Your task to perform on an android device: make emails show in primary in the gmail app Image 0: 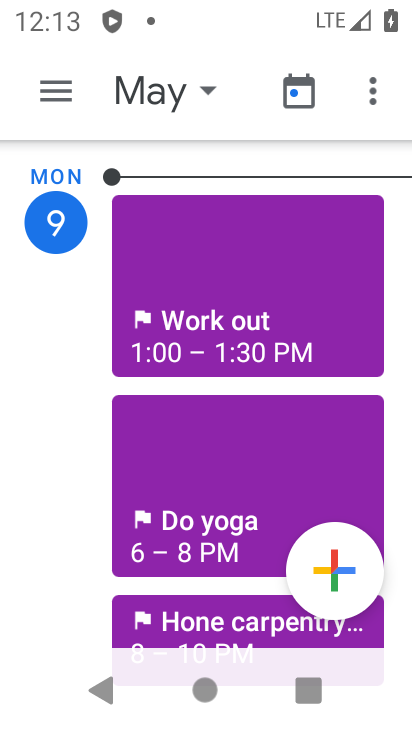
Step 0: drag from (132, 551) to (162, 326)
Your task to perform on an android device: make emails show in primary in the gmail app Image 1: 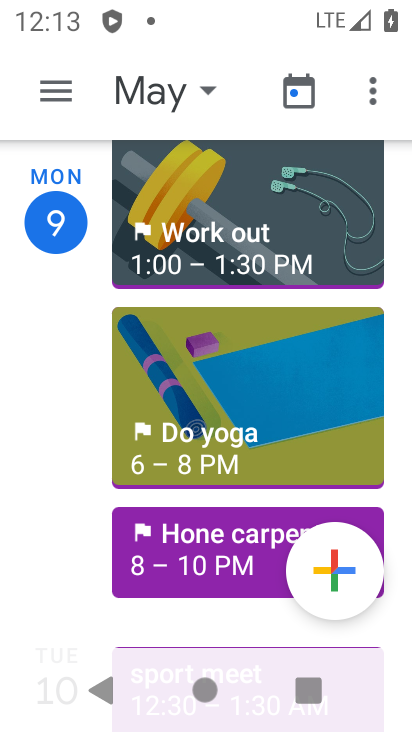
Step 1: press home button
Your task to perform on an android device: make emails show in primary in the gmail app Image 2: 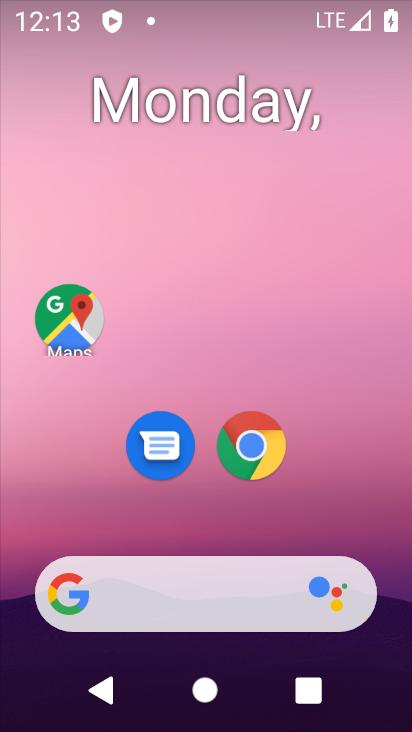
Step 2: drag from (182, 549) to (216, 283)
Your task to perform on an android device: make emails show in primary in the gmail app Image 3: 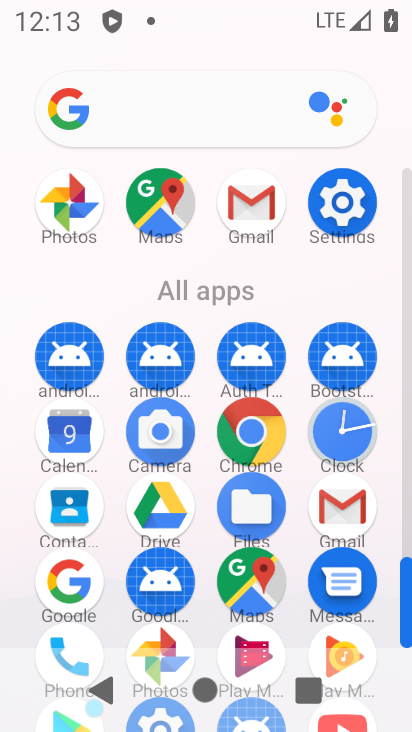
Step 3: click (343, 521)
Your task to perform on an android device: make emails show in primary in the gmail app Image 4: 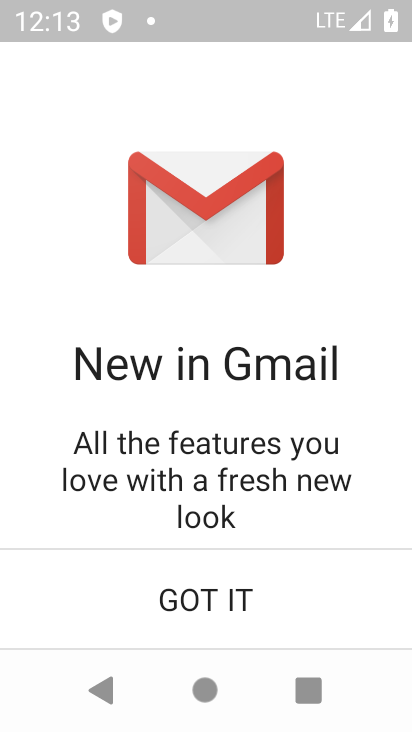
Step 4: click (273, 605)
Your task to perform on an android device: make emails show in primary in the gmail app Image 5: 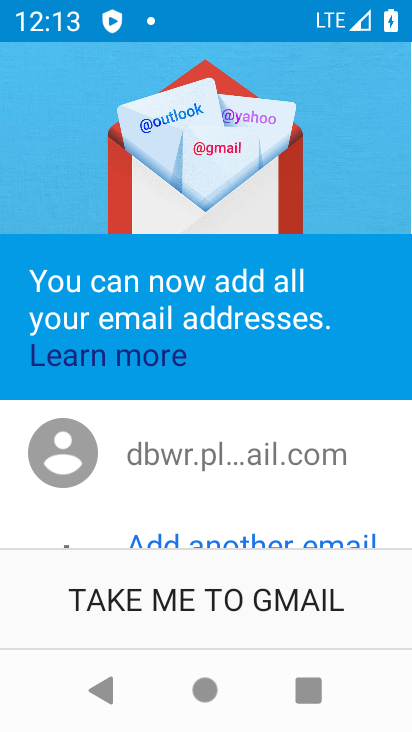
Step 5: click (273, 605)
Your task to perform on an android device: make emails show in primary in the gmail app Image 6: 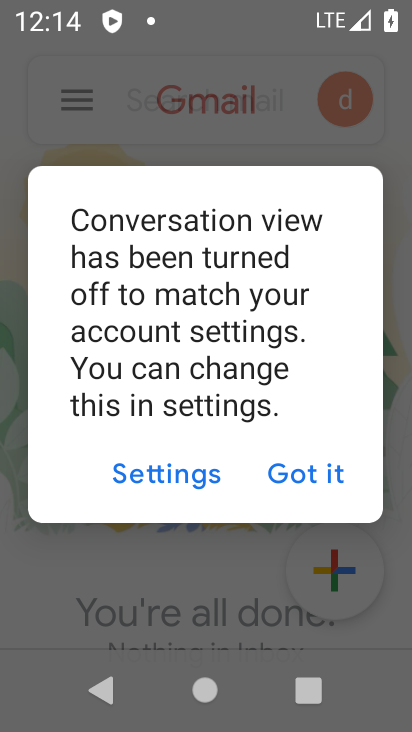
Step 6: click (319, 477)
Your task to perform on an android device: make emails show in primary in the gmail app Image 7: 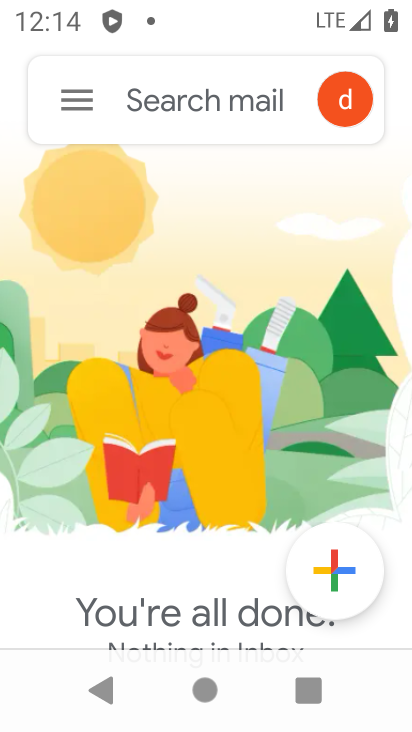
Step 7: click (72, 104)
Your task to perform on an android device: make emails show in primary in the gmail app Image 8: 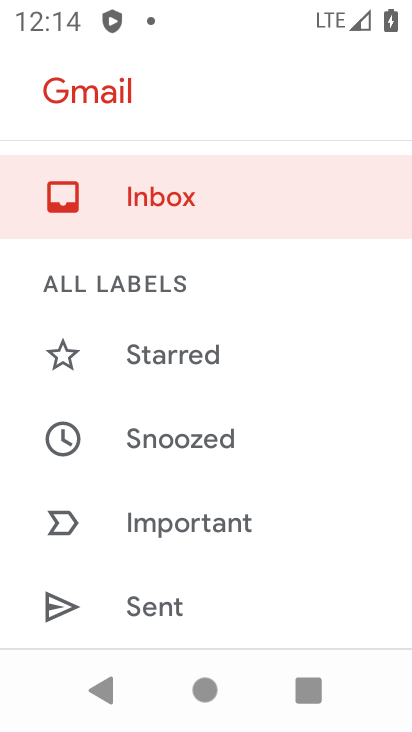
Step 8: drag from (220, 564) to (272, 358)
Your task to perform on an android device: make emails show in primary in the gmail app Image 9: 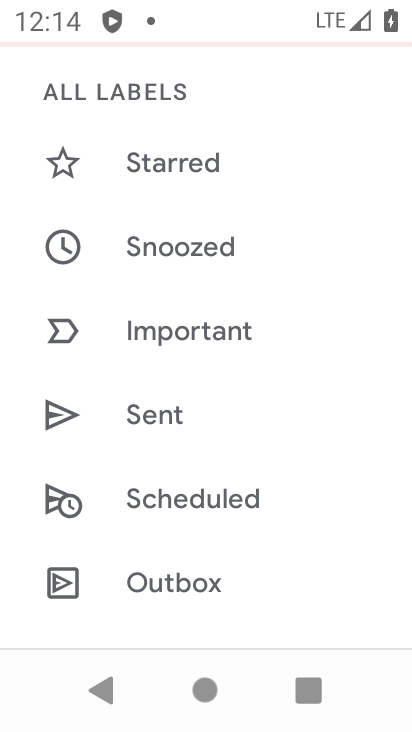
Step 9: drag from (238, 646) to (298, 381)
Your task to perform on an android device: make emails show in primary in the gmail app Image 10: 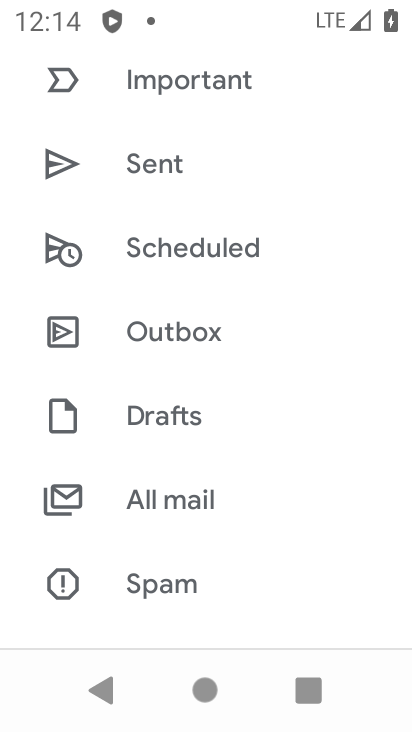
Step 10: drag from (267, 596) to (293, 476)
Your task to perform on an android device: make emails show in primary in the gmail app Image 11: 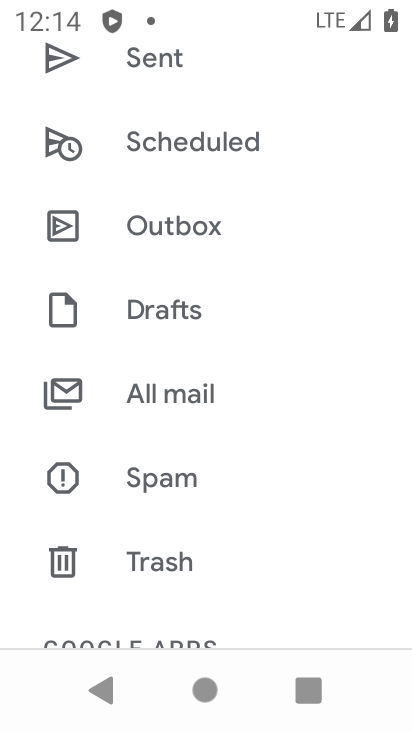
Step 11: drag from (241, 626) to (306, 392)
Your task to perform on an android device: make emails show in primary in the gmail app Image 12: 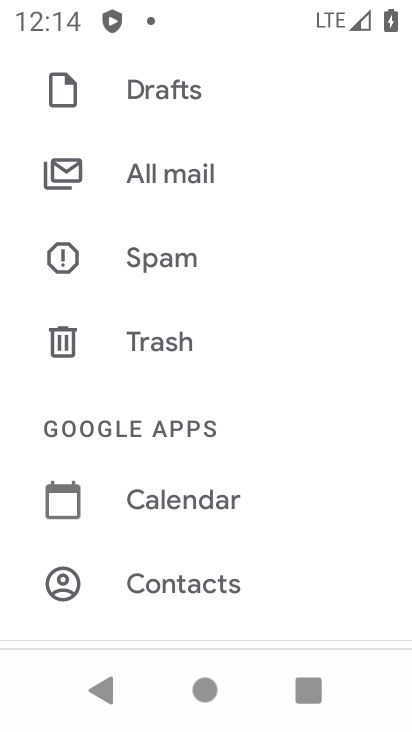
Step 12: drag from (239, 588) to (307, 338)
Your task to perform on an android device: make emails show in primary in the gmail app Image 13: 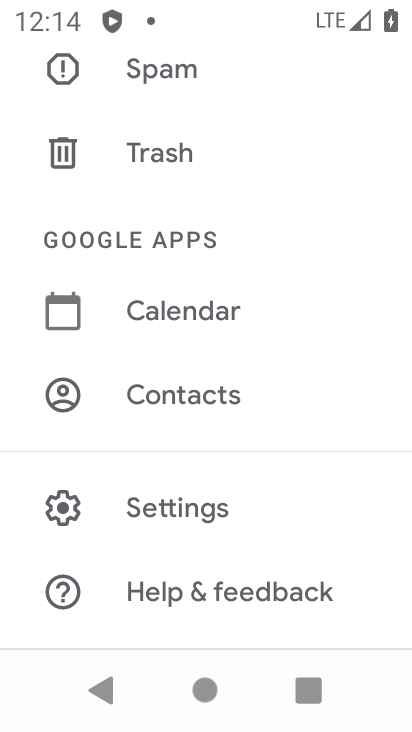
Step 13: click (254, 508)
Your task to perform on an android device: make emails show in primary in the gmail app Image 14: 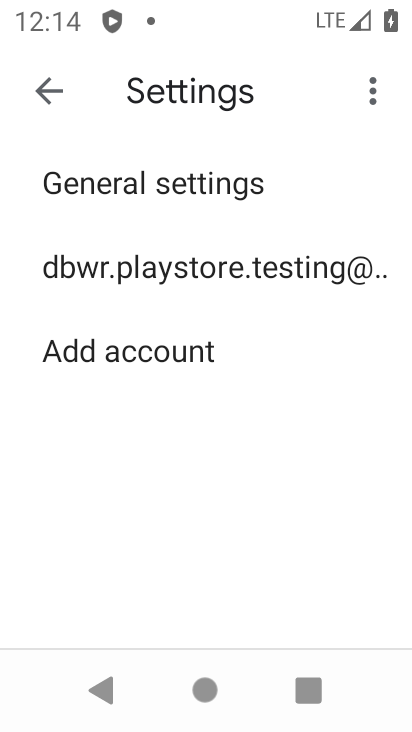
Step 14: click (254, 275)
Your task to perform on an android device: make emails show in primary in the gmail app Image 15: 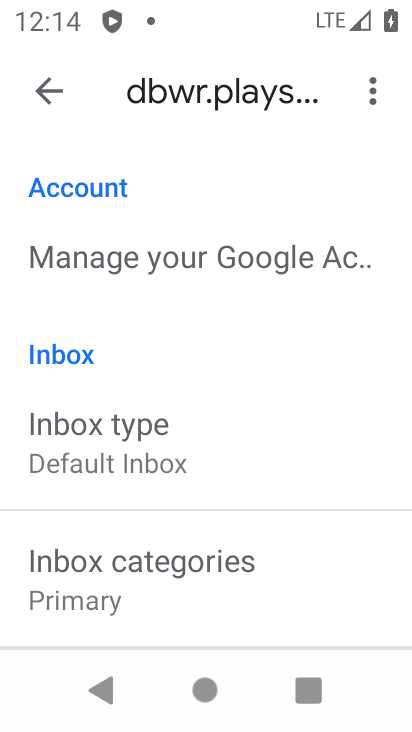
Step 15: task complete